Your task to perform on an android device: turn off location Image 0: 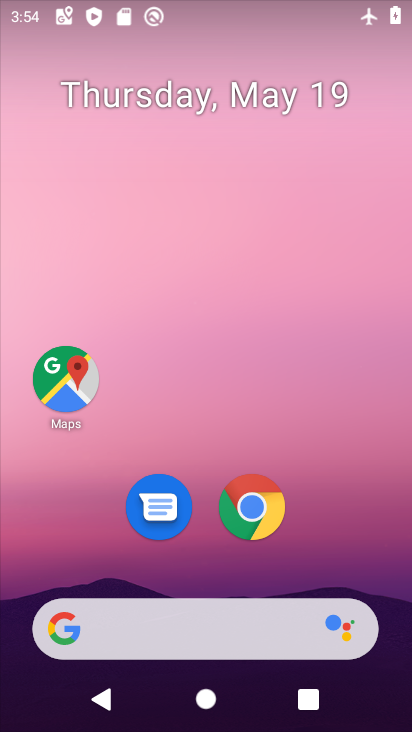
Step 0: drag from (381, 565) to (353, 105)
Your task to perform on an android device: turn off location Image 1: 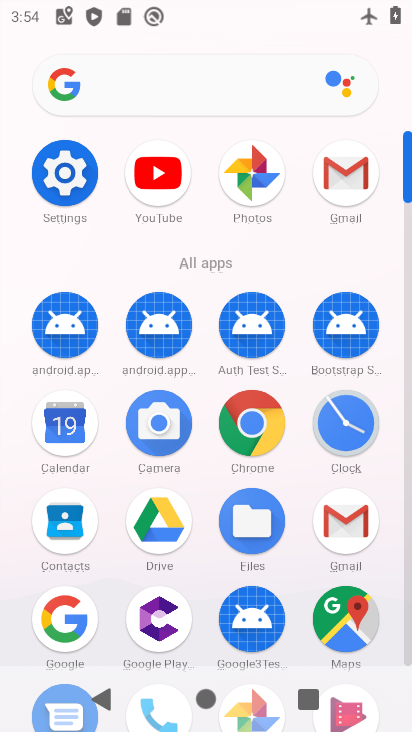
Step 1: click (70, 173)
Your task to perform on an android device: turn off location Image 2: 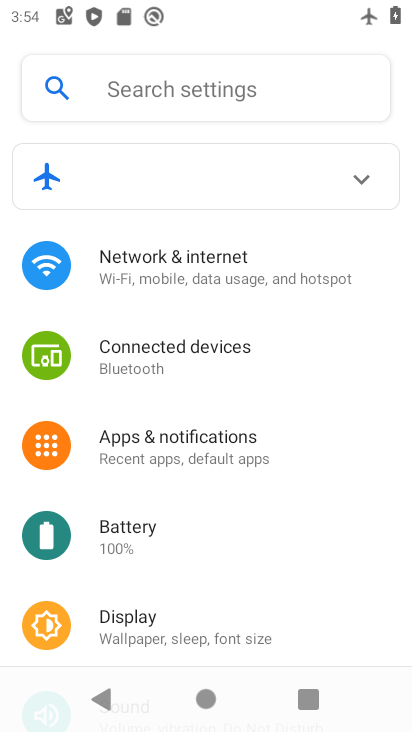
Step 2: click (213, 269)
Your task to perform on an android device: turn off location Image 3: 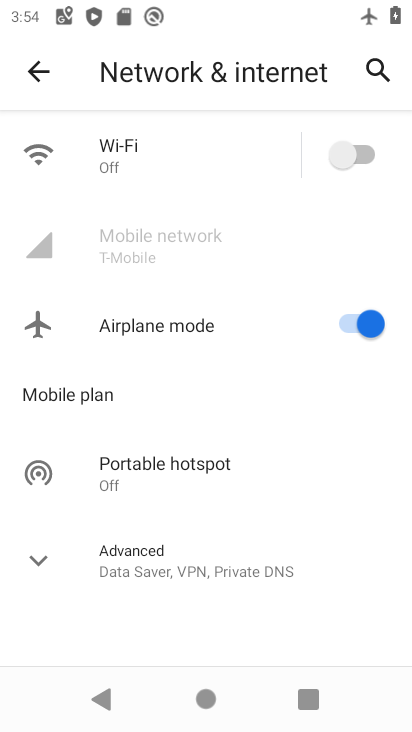
Step 3: click (365, 158)
Your task to perform on an android device: turn off location Image 4: 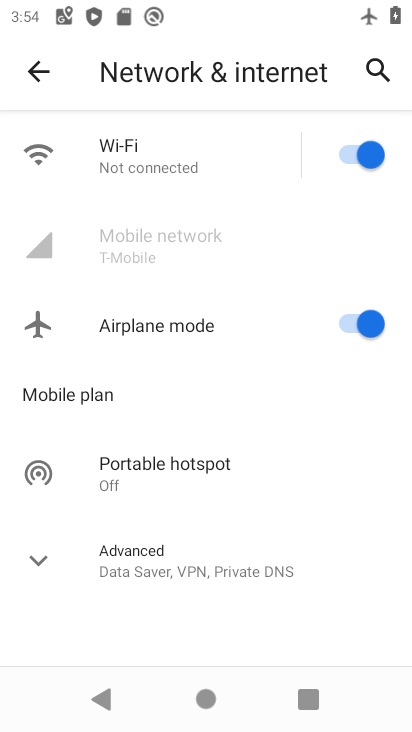
Step 4: click (348, 320)
Your task to perform on an android device: turn off location Image 5: 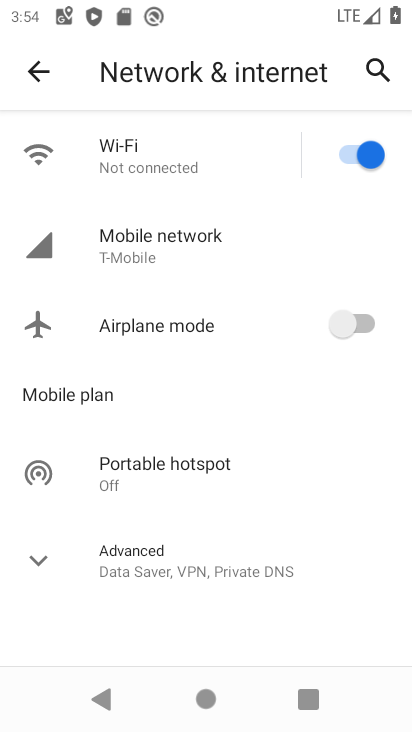
Step 5: click (29, 76)
Your task to perform on an android device: turn off location Image 6: 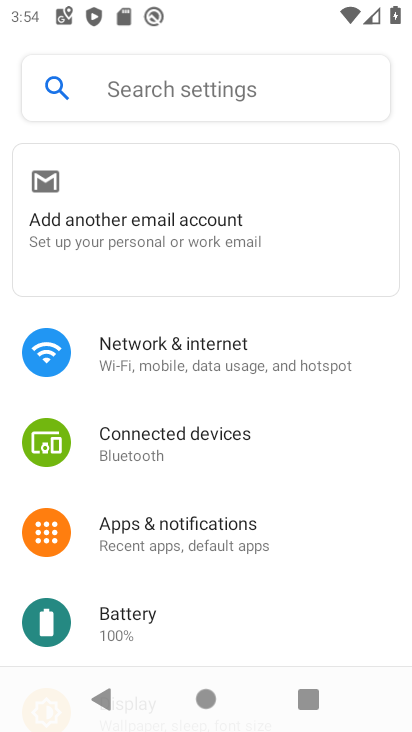
Step 6: drag from (339, 647) to (345, 346)
Your task to perform on an android device: turn off location Image 7: 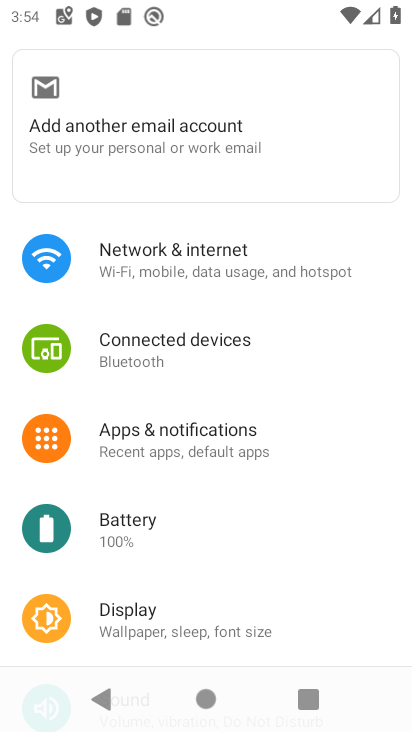
Step 7: drag from (311, 649) to (331, 363)
Your task to perform on an android device: turn off location Image 8: 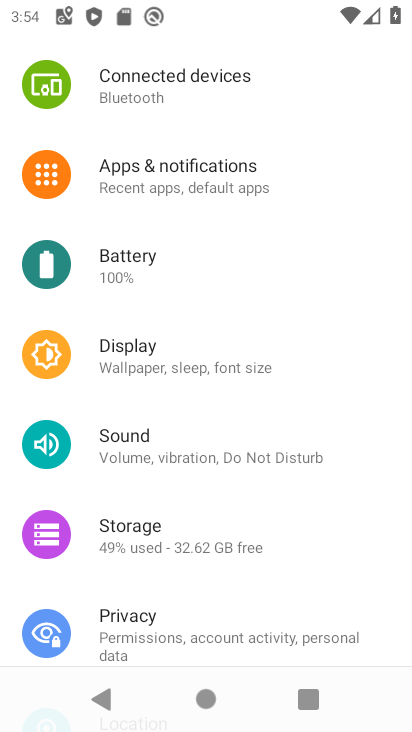
Step 8: drag from (311, 529) to (328, 257)
Your task to perform on an android device: turn off location Image 9: 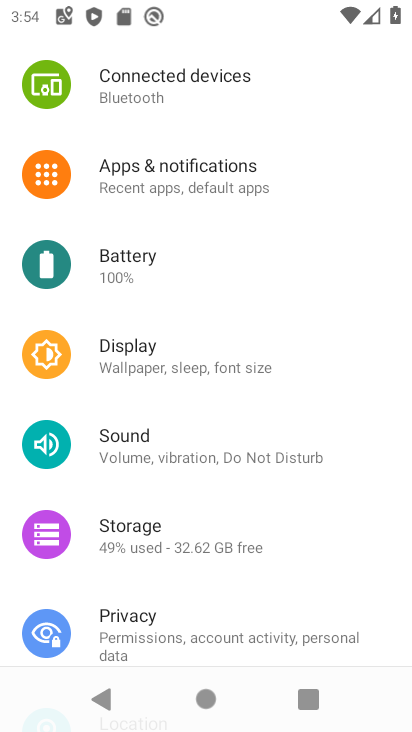
Step 9: drag from (371, 644) to (364, 355)
Your task to perform on an android device: turn off location Image 10: 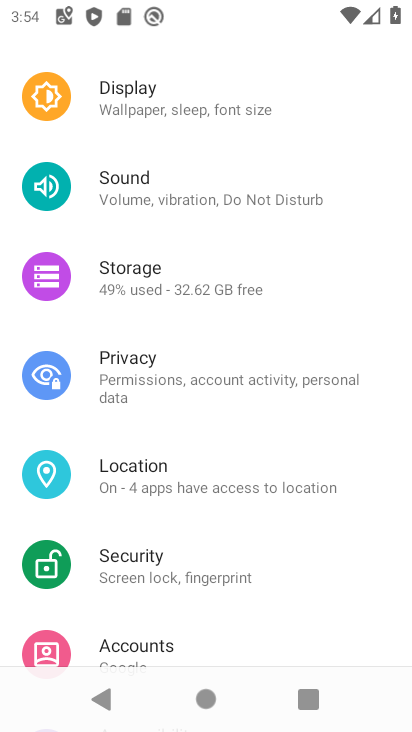
Step 10: drag from (328, 650) to (357, 462)
Your task to perform on an android device: turn off location Image 11: 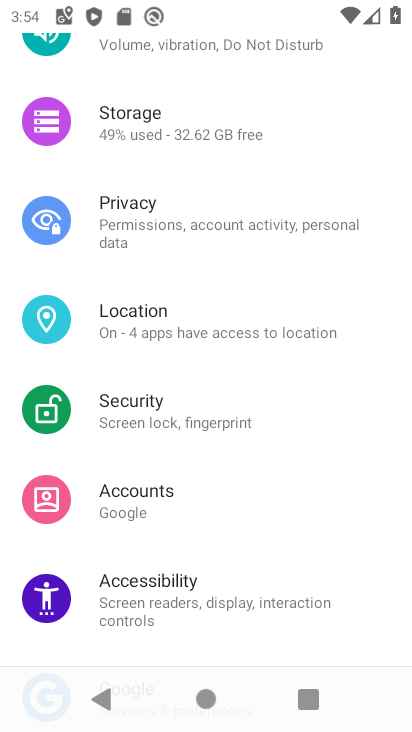
Step 11: click (107, 309)
Your task to perform on an android device: turn off location Image 12: 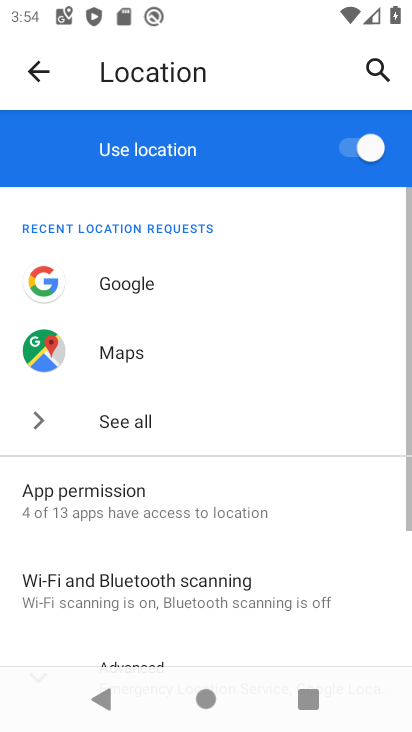
Step 12: click (343, 149)
Your task to perform on an android device: turn off location Image 13: 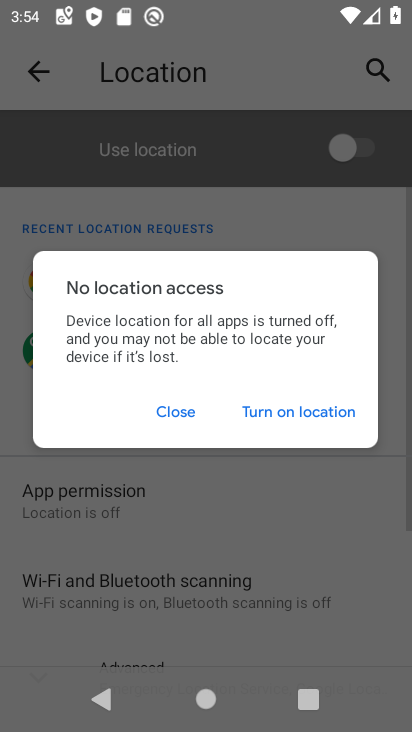
Step 13: task complete